Your task to perform on an android device: choose inbox layout in the gmail app Image 0: 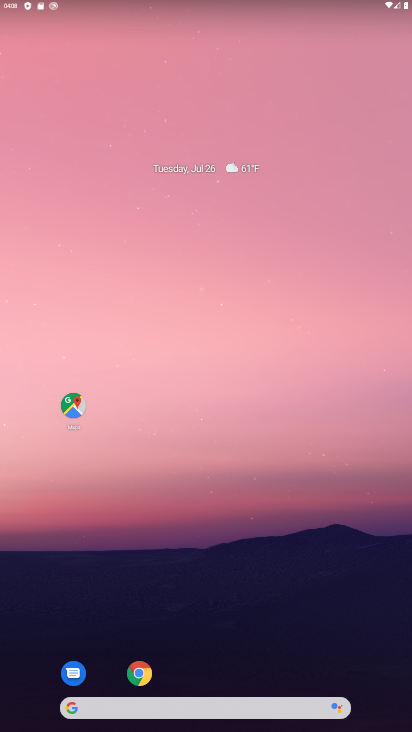
Step 0: press home button
Your task to perform on an android device: choose inbox layout in the gmail app Image 1: 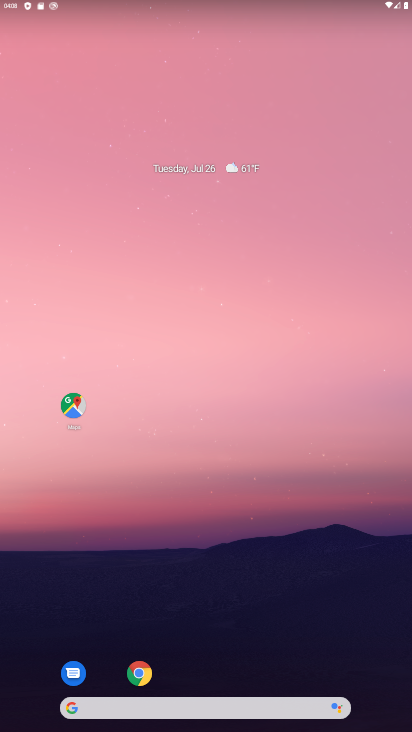
Step 1: drag from (215, 670) to (244, 113)
Your task to perform on an android device: choose inbox layout in the gmail app Image 2: 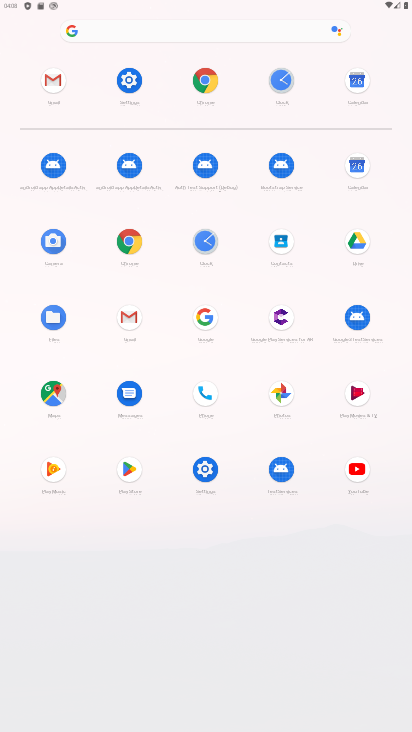
Step 2: click (129, 304)
Your task to perform on an android device: choose inbox layout in the gmail app Image 3: 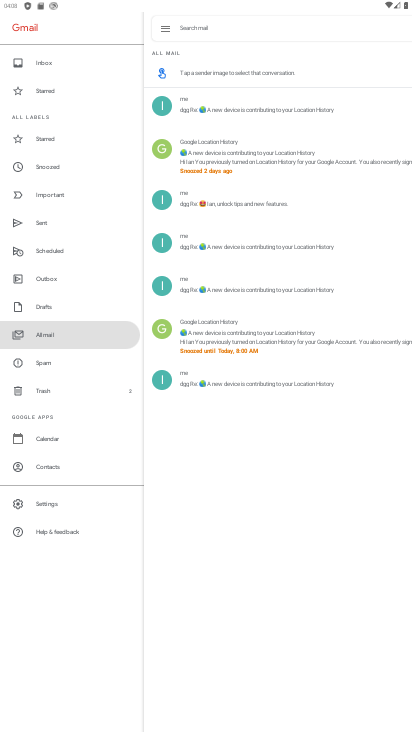
Step 3: click (46, 505)
Your task to perform on an android device: choose inbox layout in the gmail app Image 4: 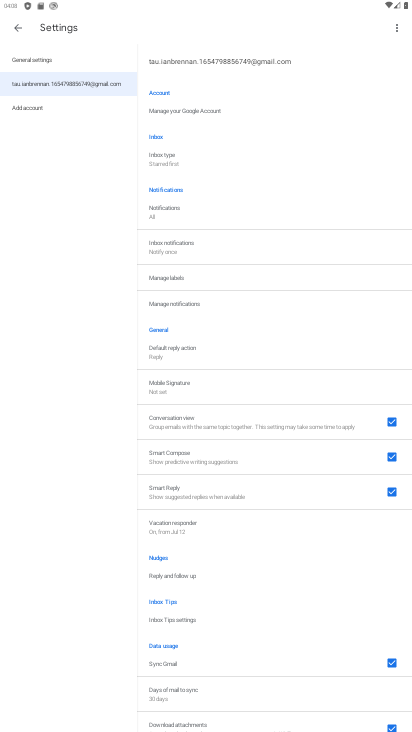
Step 4: click (172, 154)
Your task to perform on an android device: choose inbox layout in the gmail app Image 5: 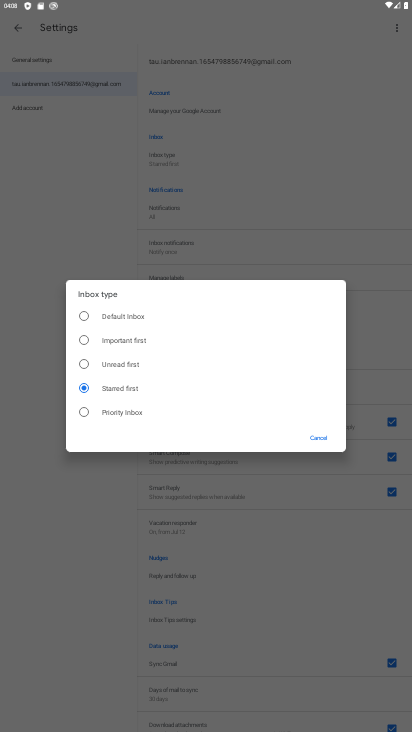
Step 5: click (76, 312)
Your task to perform on an android device: choose inbox layout in the gmail app Image 6: 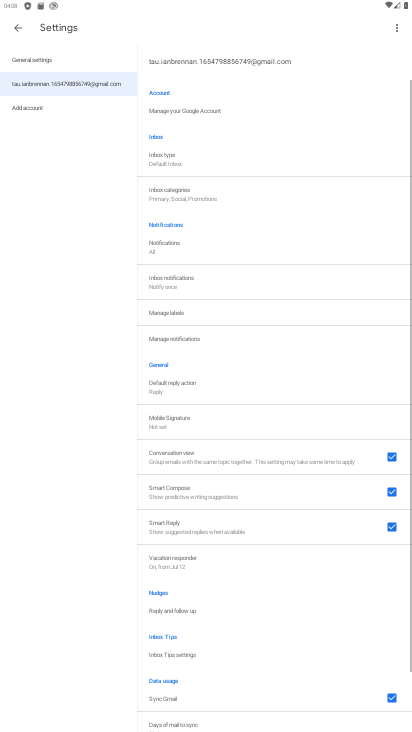
Step 6: task complete